Your task to perform on an android device: delete browsing data in the chrome app Image 0: 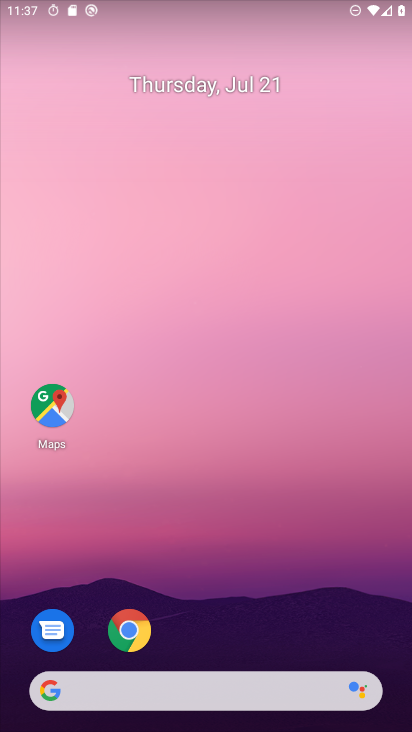
Step 0: press home button
Your task to perform on an android device: delete browsing data in the chrome app Image 1: 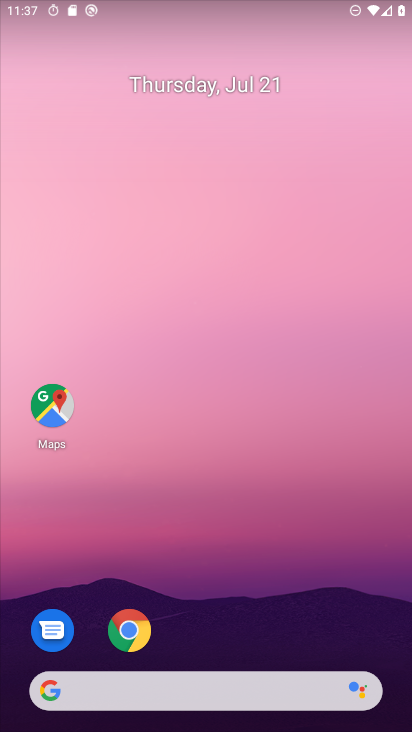
Step 1: click (146, 631)
Your task to perform on an android device: delete browsing data in the chrome app Image 2: 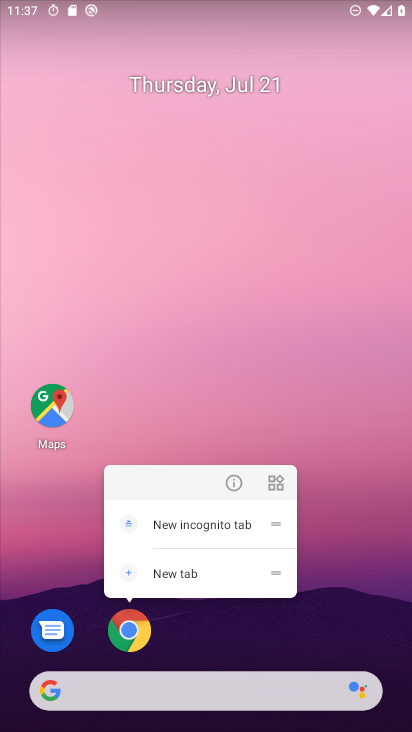
Step 2: click (119, 629)
Your task to perform on an android device: delete browsing data in the chrome app Image 3: 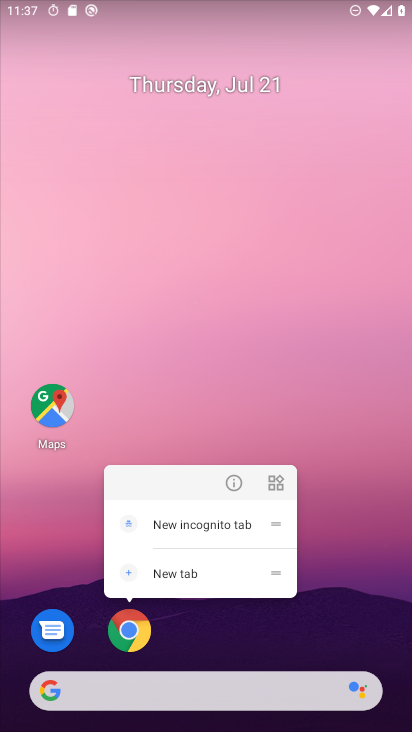
Step 3: click (132, 627)
Your task to perform on an android device: delete browsing data in the chrome app Image 4: 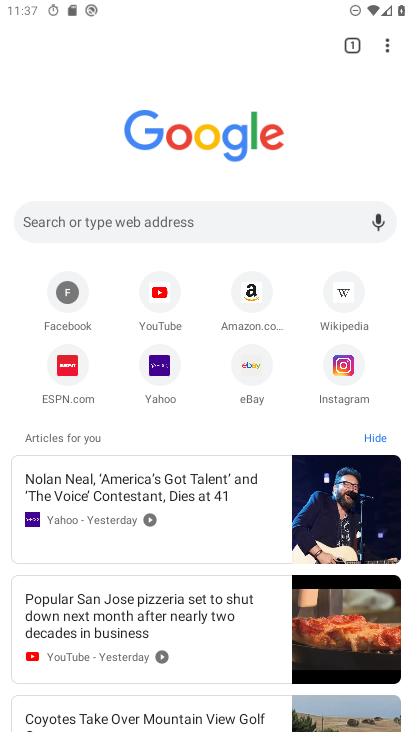
Step 4: click (390, 41)
Your task to perform on an android device: delete browsing data in the chrome app Image 5: 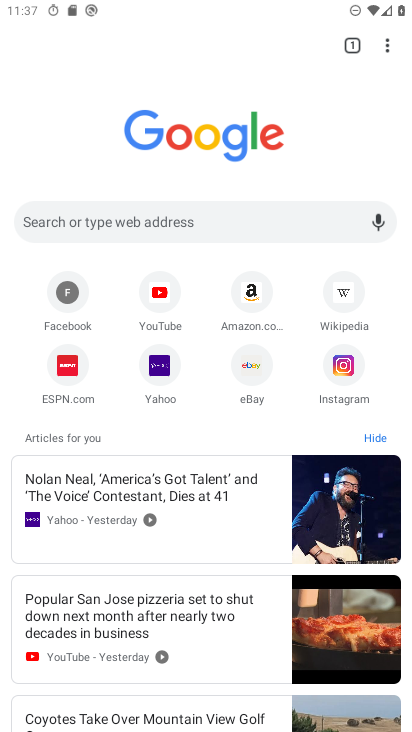
Step 5: drag from (378, 50) to (226, 436)
Your task to perform on an android device: delete browsing data in the chrome app Image 6: 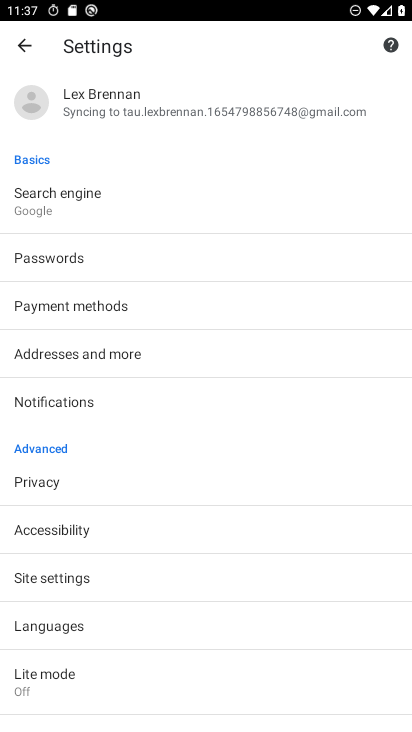
Step 6: click (49, 574)
Your task to perform on an android device: delete browsing data in the chrome app Image 7: 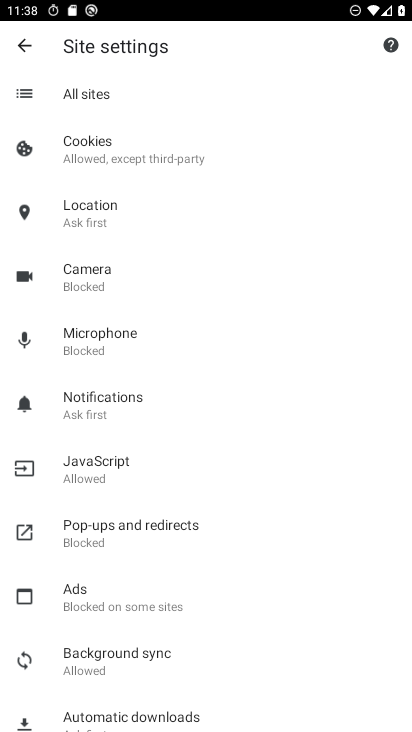
Step 7: drag from (142, 680) to (80, 215)
Your task to perform on an android device: delete browsing data in the chrome app Image 8: 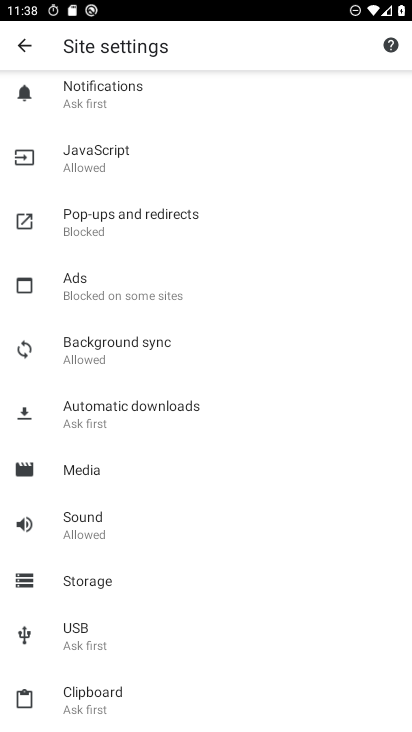
Step 8: drag from (132, 172) to (130, 639)
Your task to perform on an android device: delete browsing data in the chrome app Image 9: 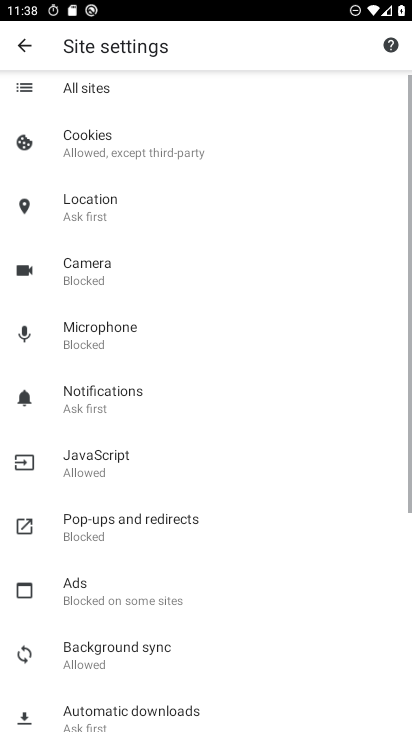
Step 9: click (16, 45)
Your task to perform on an android device: delete browsing data in the chrome app Image 10: 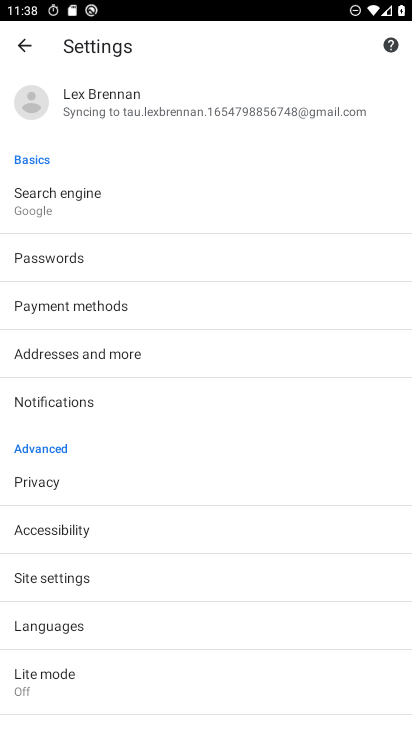
Step 10: drag from (146, 453) to (128, 124)
Your task to perform on an android device: delete browsing data in the chrome app Image 11: 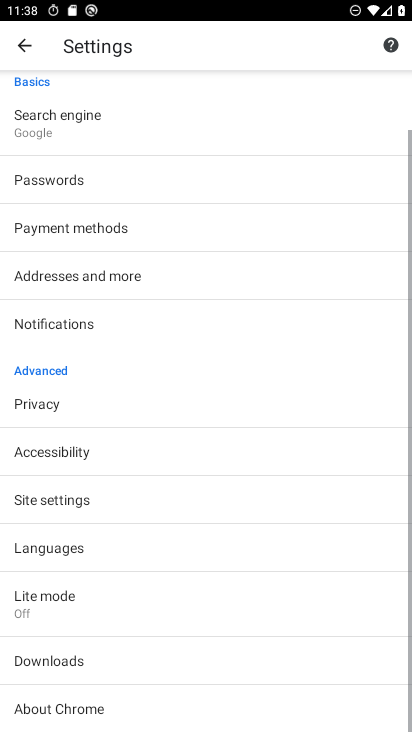
Step 11: click (68, 407)
Your task to perform on an android device: delete browsing data in the chrome app Image 12: 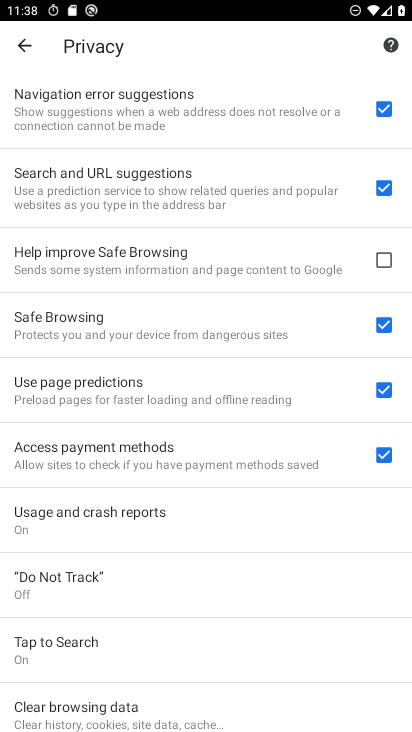
Step 12: drag from (144, 670) to (104, 196)
Your task to perform on an android device: delete browsing data in the chrome app Image 13: 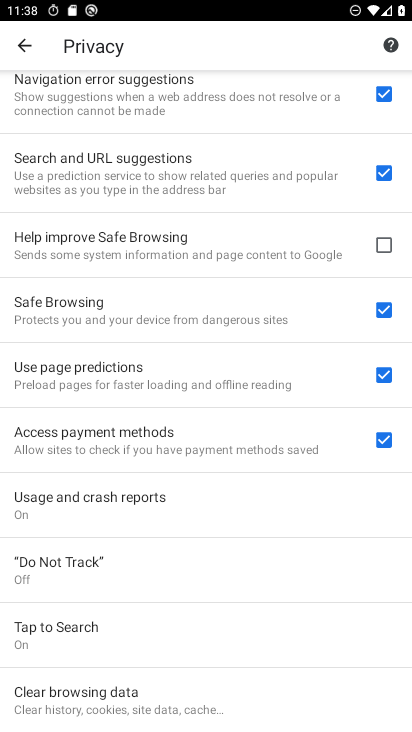
Step 13: click (96, 693)
Your task to perform on an android device: delete browsing data in the chrome app Image 14: 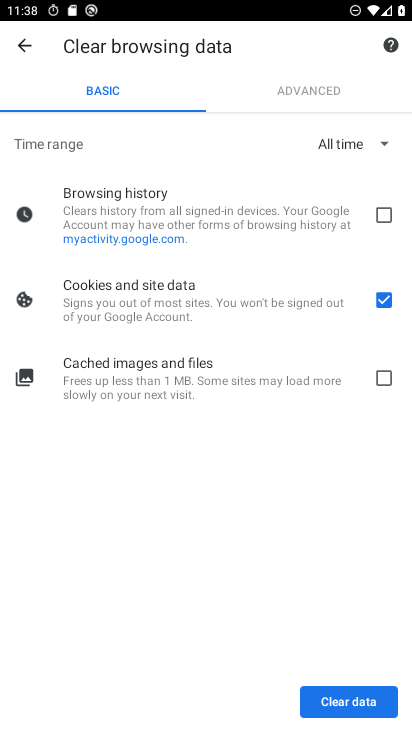
Step 14: click (376, 206)
Your task to perform on an android device: delete browsing data in the chrome app Image 15: 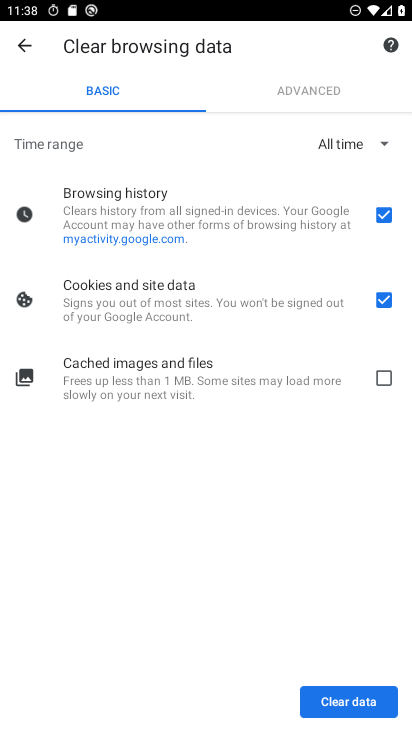
Step 15: click (388, 296)
Your task to perform on an android device: delete browsing data in the chrome app Image 16: 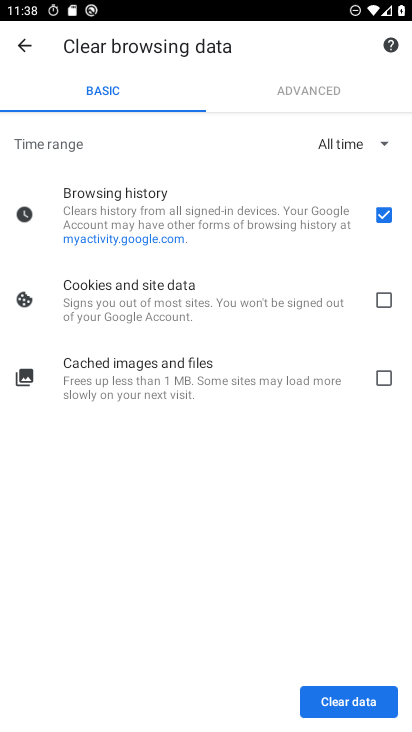
Step 16: click (331, 701)
Your task to perform on an android device: delete browsing data in the chrome app Image 17: 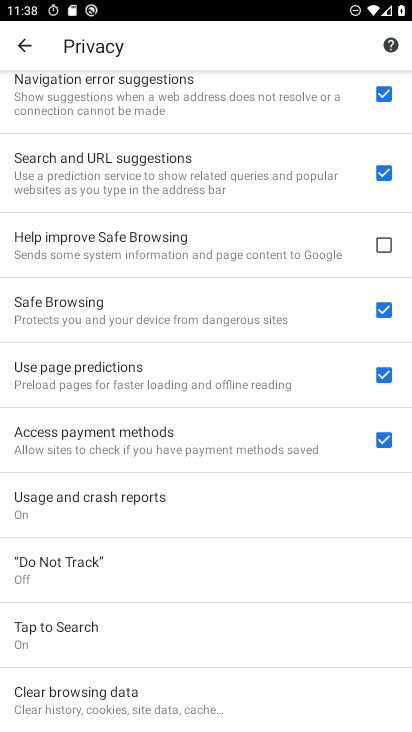
Step 17: task complete